Your task to perform on an android device: Open privacy settings Image 0: 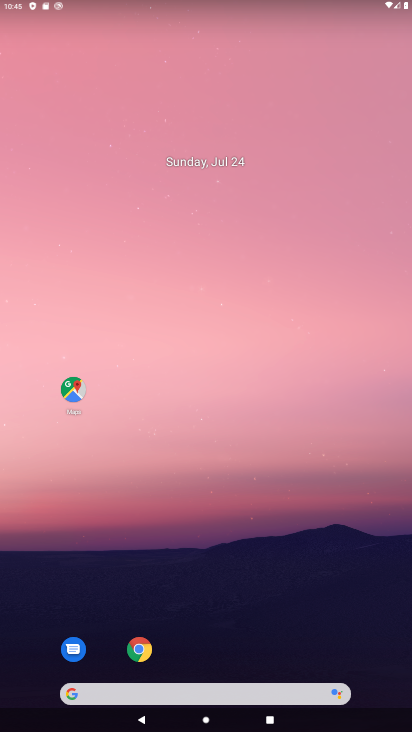
Step 0: drag from (233, 653) to (259, 167)
Your task to perform on an android device: Open privacy settings Image 1: 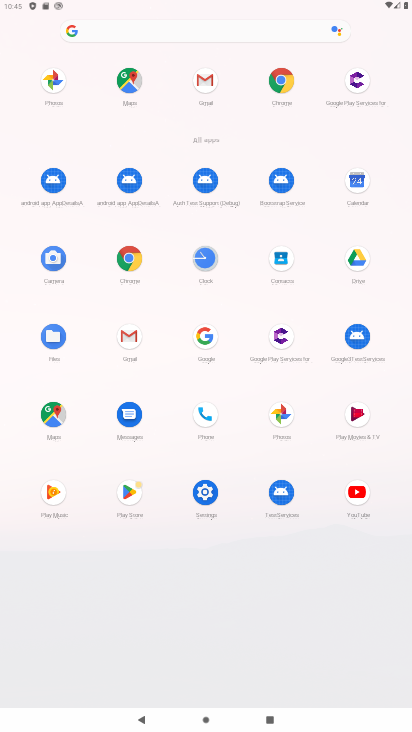
Step 1: click (210, 500)
Your task to perform on an android device: Open privacy settings Image 2: 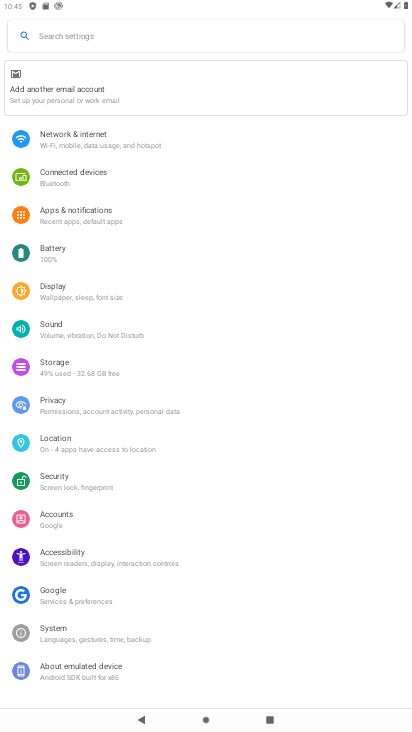
Step 2: click (107, 409)
Your task to perform on an android device: Open privacy settings Image 3: 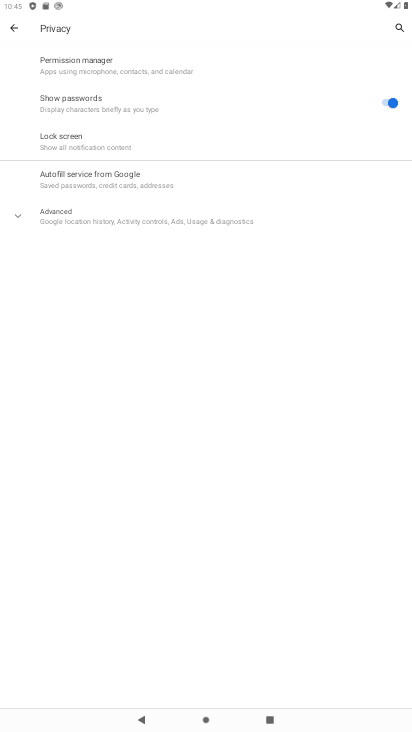
Step 3: task complete